Your task to perform on an android device: Go to Wikipedia Image 0: 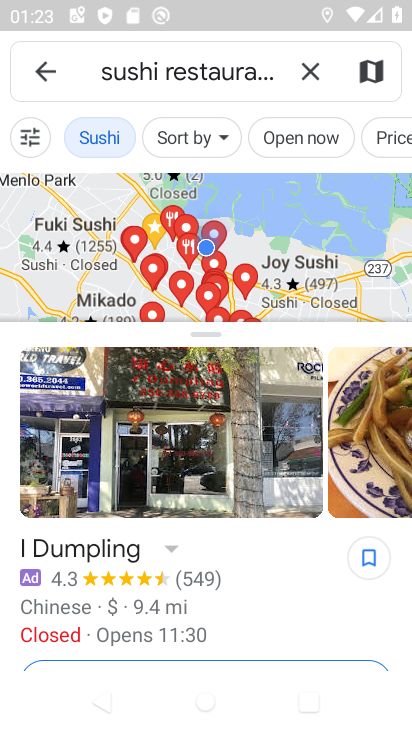
Step 0: press home button
Your task to perform on an android device: Go to Wikipedia Image 1: 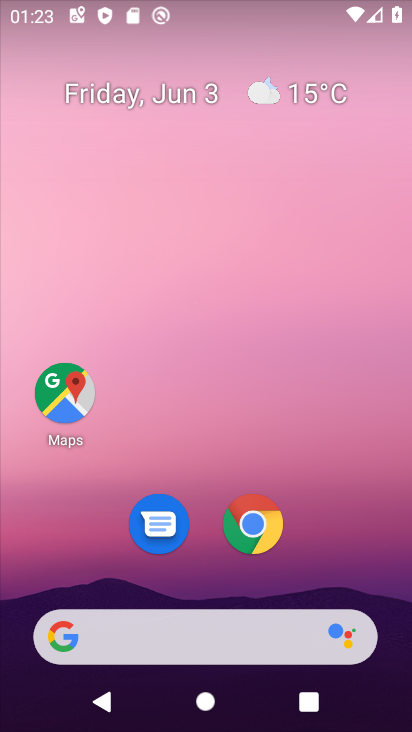
Step 1: click (265, 524)
Your task to perform on an android device: Go to Wikipedia Image 2: 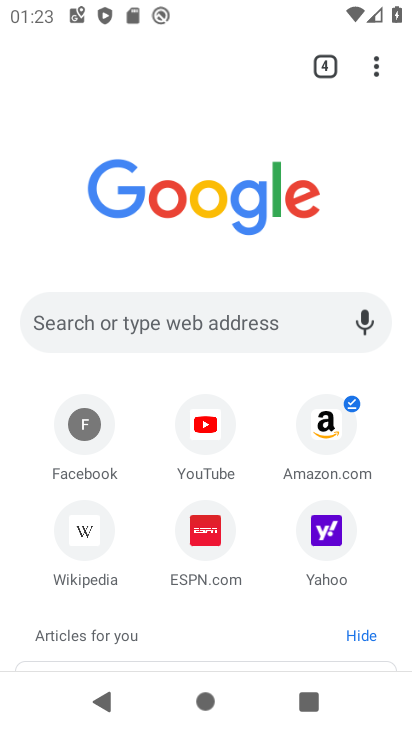
Step 2: click (265, 524)
Your task to perform on an android device: Go to Wikipedia Image 3: 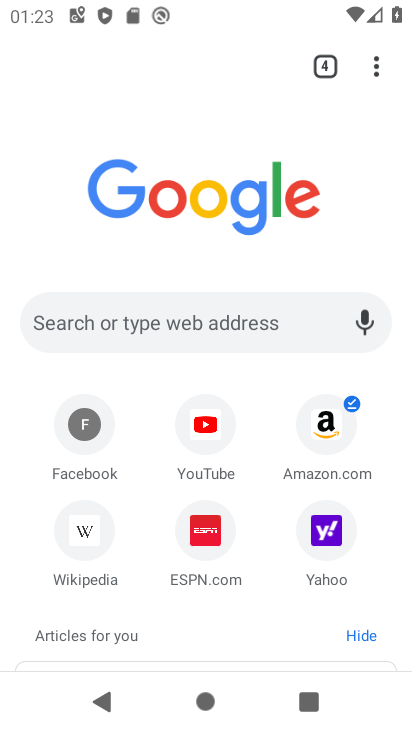
Step 3: click (88, 531)
Your task to perform on an android device: Go to Wikipedia Image 4: 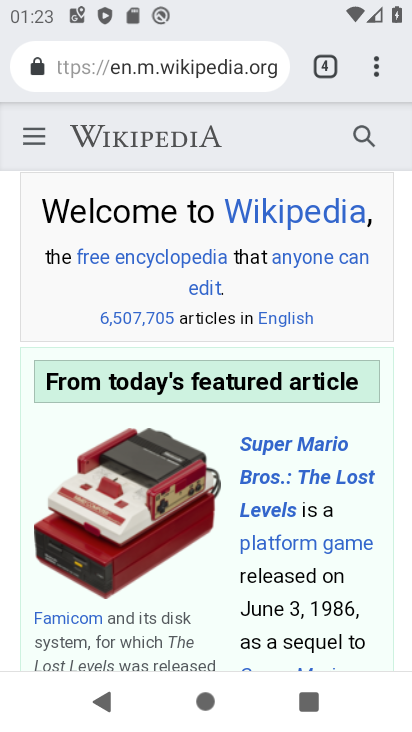
Step 4: task complete